Your task to perform on an android device: Open network settings Image 0: 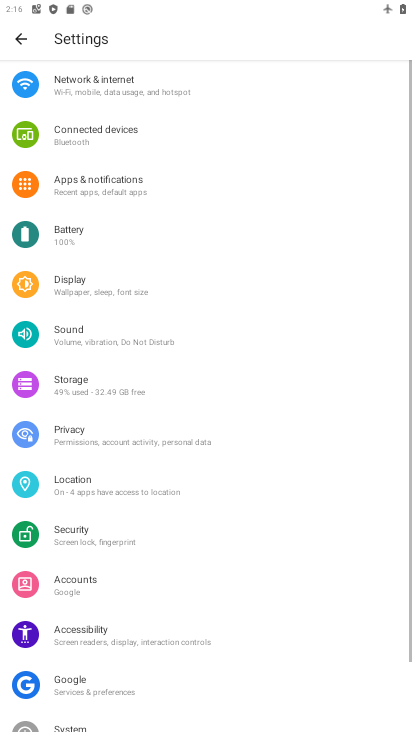
Step 0: click (160, 87)
Your task to perform on an android device: Open network settings Image 1: 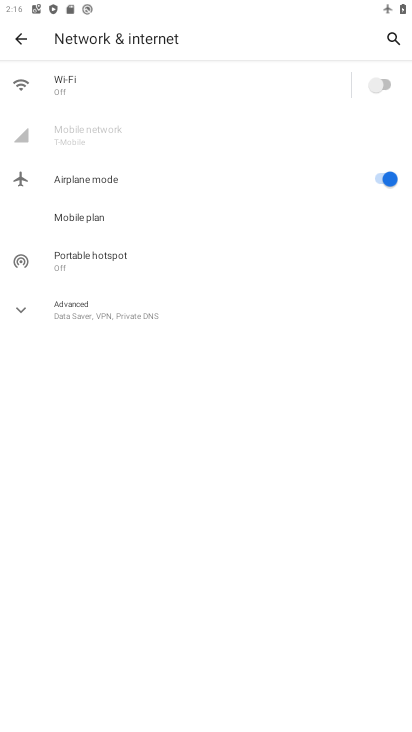
Step 1: task complete